Your task to perform on an android device: turn off translation in the chrome app Image 0: 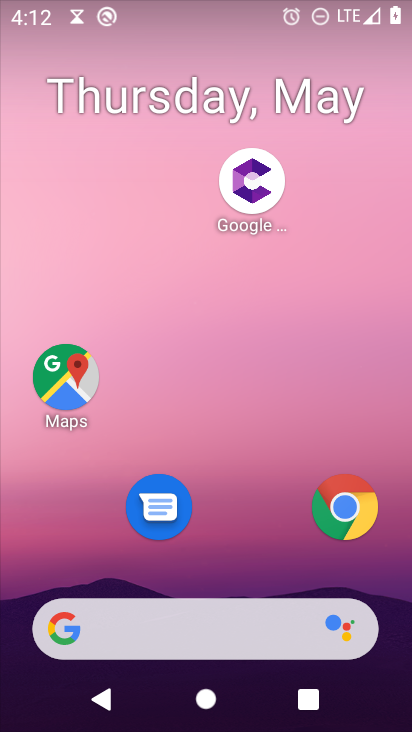
Step 0: press home button
Your task to perform on an android device: turn off translation in the chrome app Image 1: 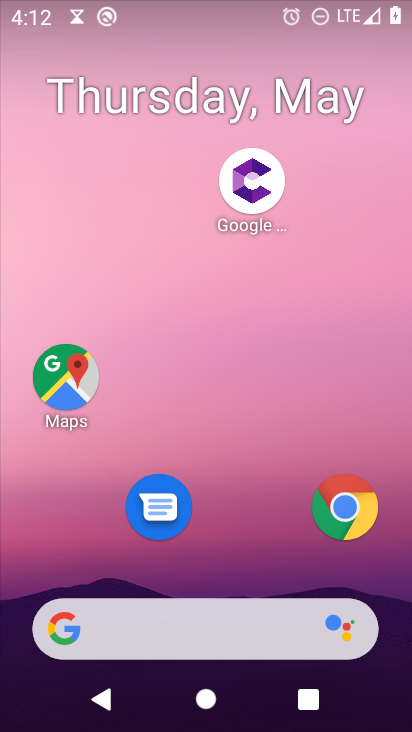
Step 1: click (351, 511)
Your task to perform on an android device: turn off translation in the chrome app Image 2: 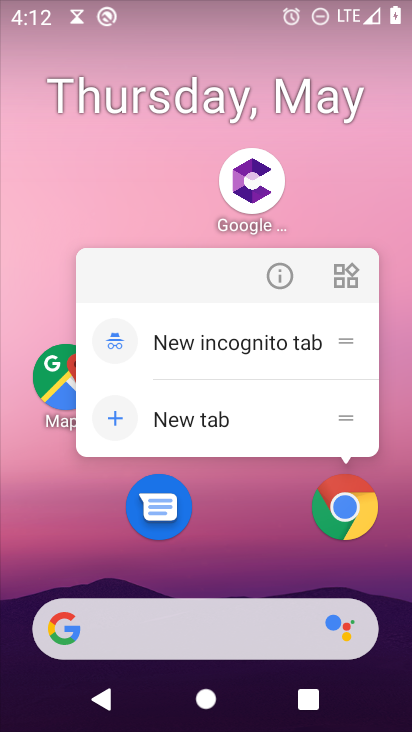
Step 2: click (351, 511)
Your task to perform on an android device: turn off translation in the chrome app Image 3: 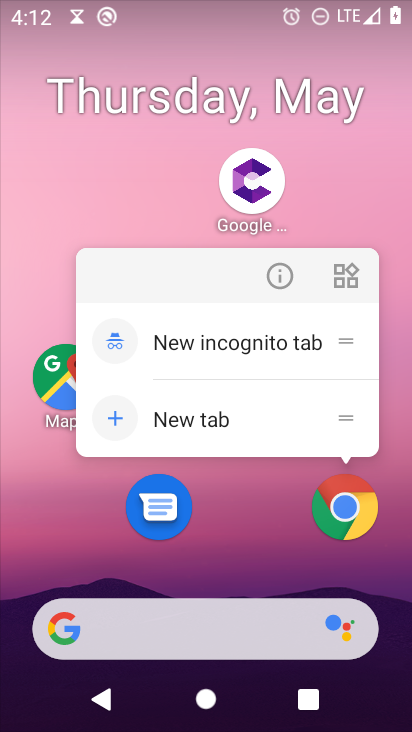
Step 3: click (351, 511)
Your task to perform on an android device: turn off translation in the chrome app Image 4: 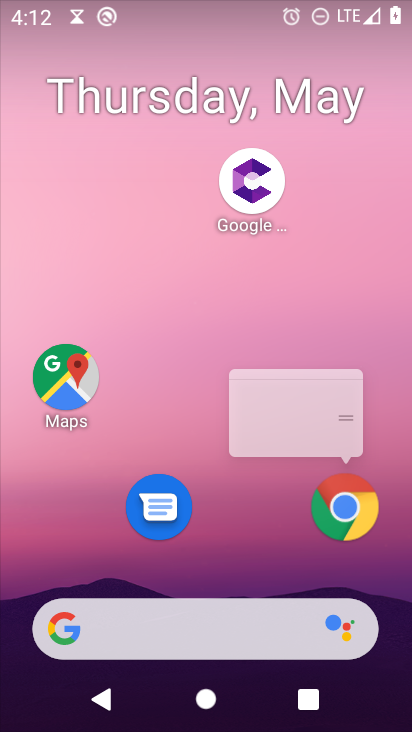
Step 4: click (351, 511)
Your task to perform on an android device: turn off translation in the chrome app Image 5: 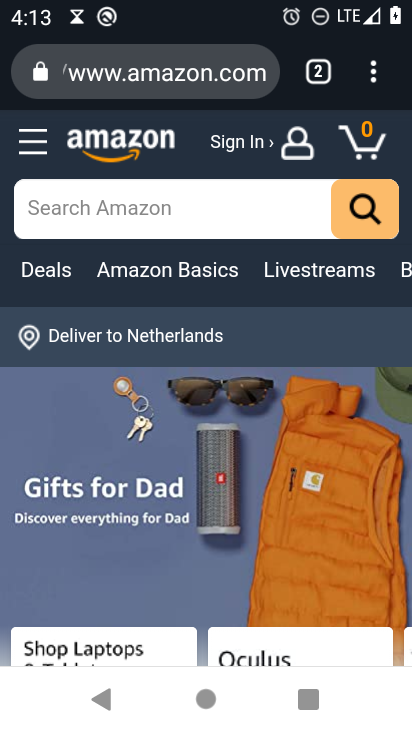
Step 5: drag from (378, 79) to (189, 515)
Your task to perform on an android device: turn off translation in the chrome app Image 6: 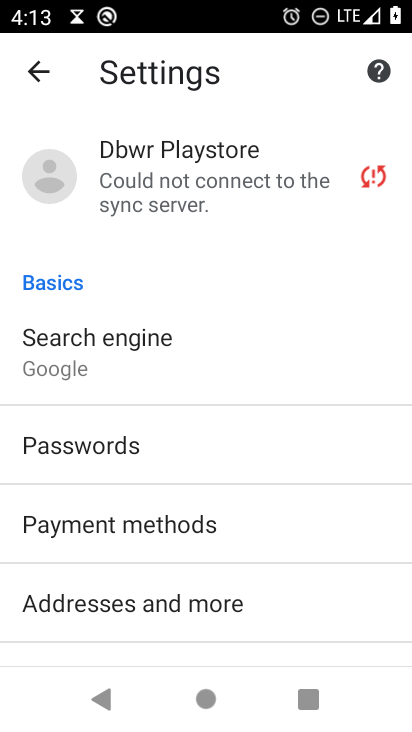
Step 6: drag from (289, 595) to (288, 284)
Your task to perform on an android device: turn off translation in the chrome app Image 7: 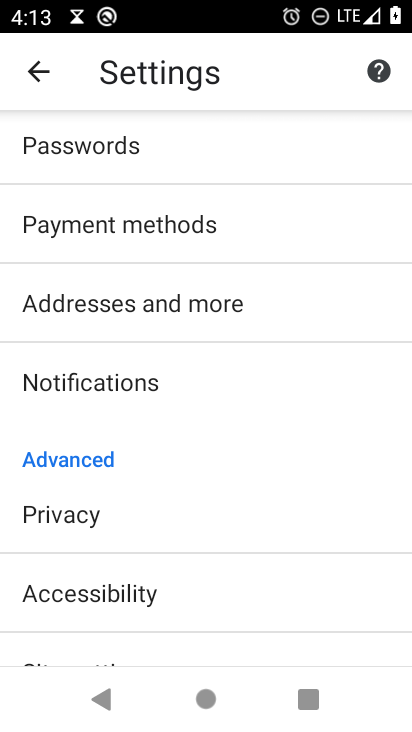
Step 7: drag from (267, 592) to (260, 208)
Your task to perform on an android device: turn off translation in the chrome app Image 8: 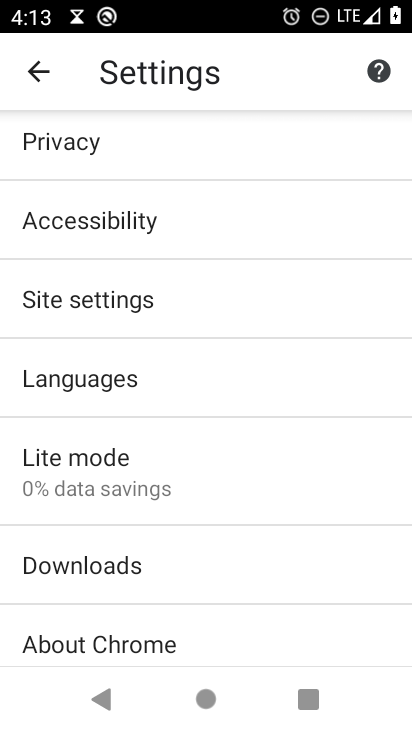
Step 8: click (80, 384)
Your task to perform on an android device: turn off translation in the chrome app Image 9: 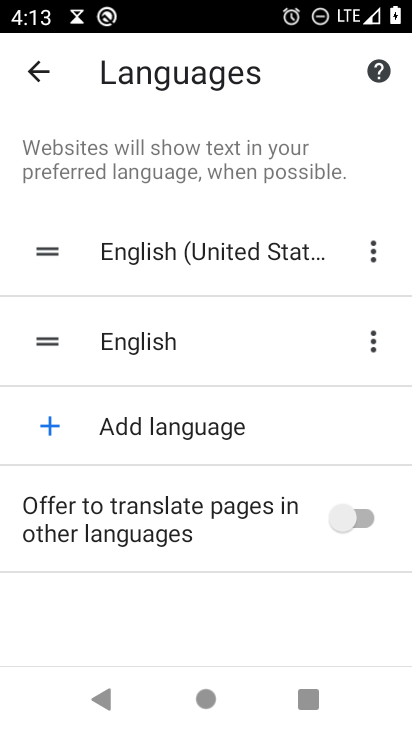
Step 9: task complete